Your task to perform on an android device: turn on translation in the chrome app Image 0: 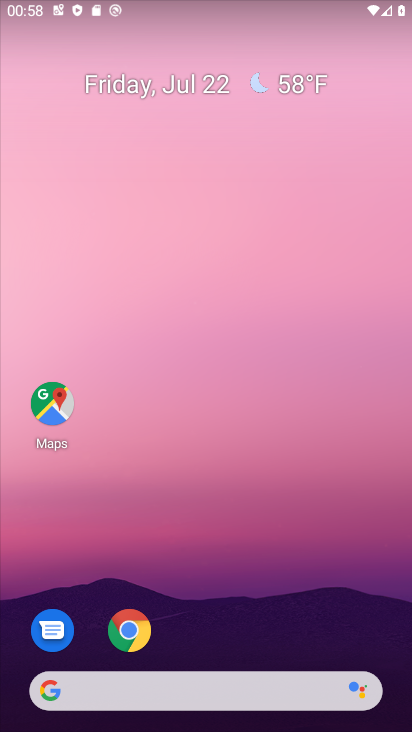
Step 0: drag from (304, 583) to (313, 61)
Your task to perform on an android device: turn on translation in the chrome app Image 1: 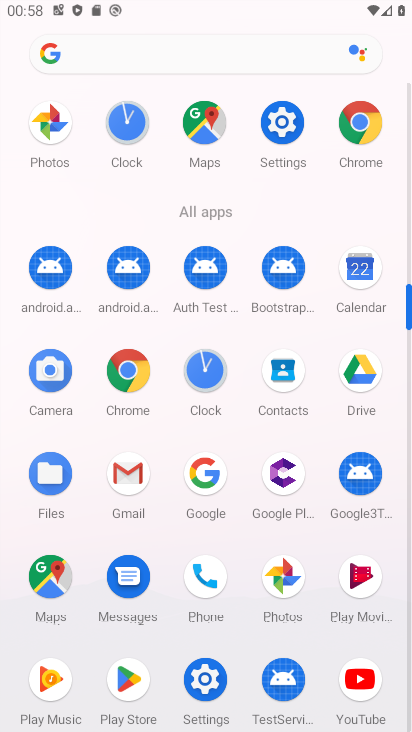
Step 1: click (137, 370)
Your task to perform on an android device: turn on translation in the chrome app Image 2: 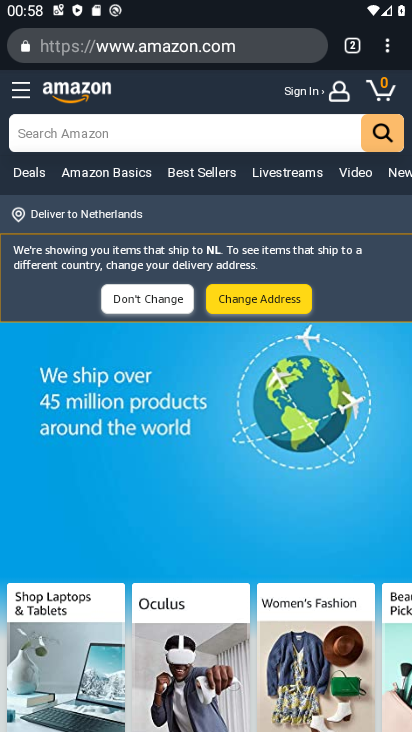
Step 2: drag from (385, 45) to (279, 546)
Your task to perform on an android device: turn on translation in the chrome app Image 3: 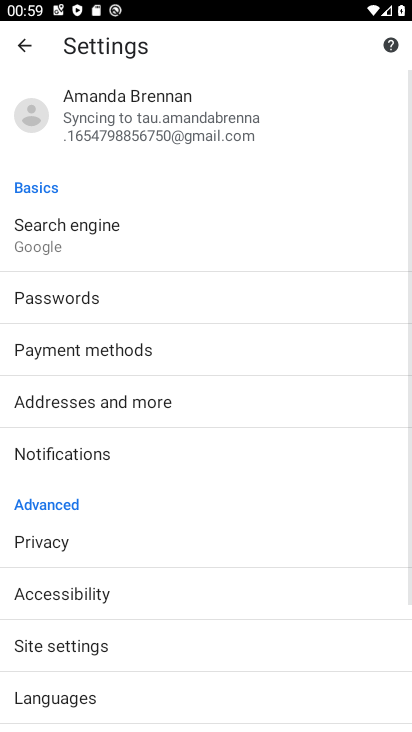
Step 3: drag from (265, 602) to (294, 200)
Your task to perform on an android device: turn on translation in the chrome app Image 4: 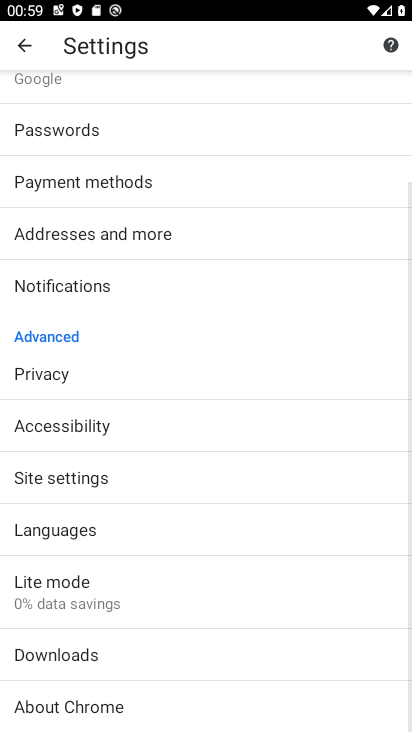
Step 4: click (127, 536)
Your task to perform on an android device: turn on translation in the chrome app Image 5: 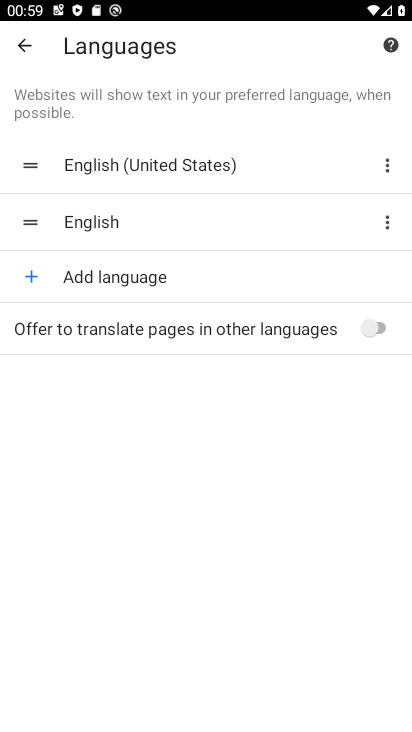
Step 5: click (265, 328)
Your task to perform on an android device: turn on translation in the chrome app Image 6: 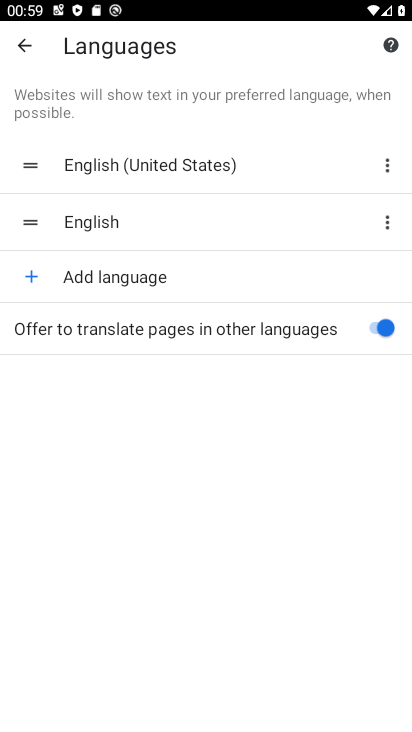
Step 6: task complete